Your task to perform on an android device: Open internet settings Image 0: 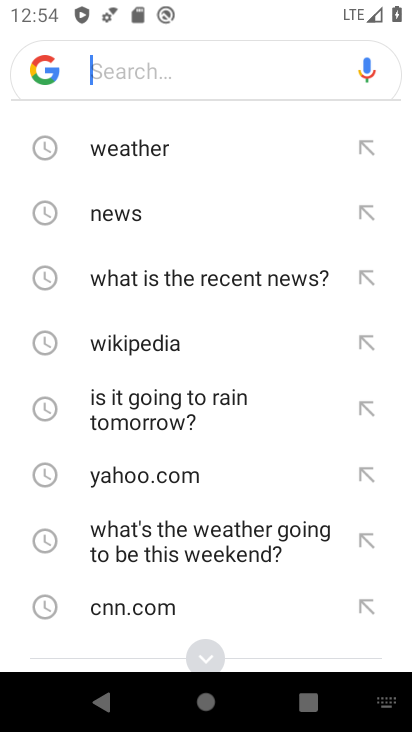
Step 0: press home button
Your task to perform on an android device: Open internet settings Image 1: 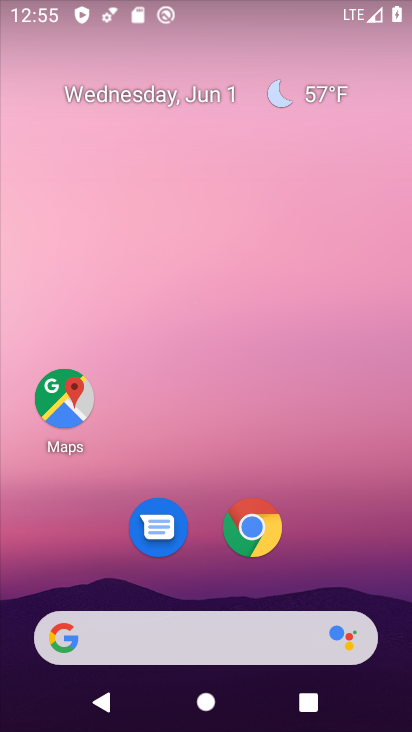
Step 1: drag from (208, 622) to (230, 156)
Your task to perform on an android device: Open internet settings Image 2: 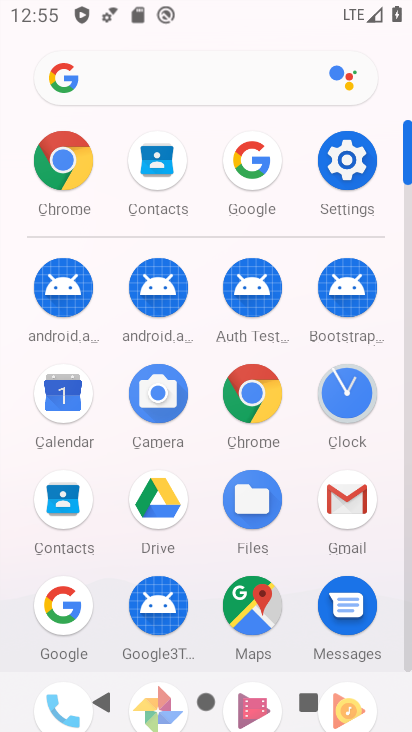
Step 2: click (353, 149)
Your task to perform on an android device: Open internet settings Image 3: 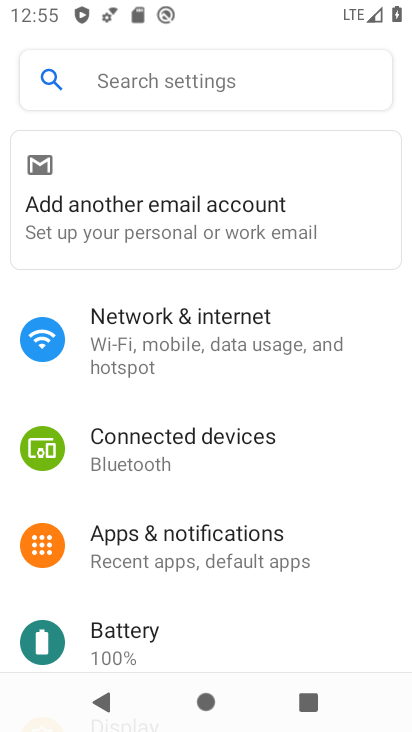
Step 3: click (211, 355)
Your task to perform on an android device: Open internet settings Image 4: 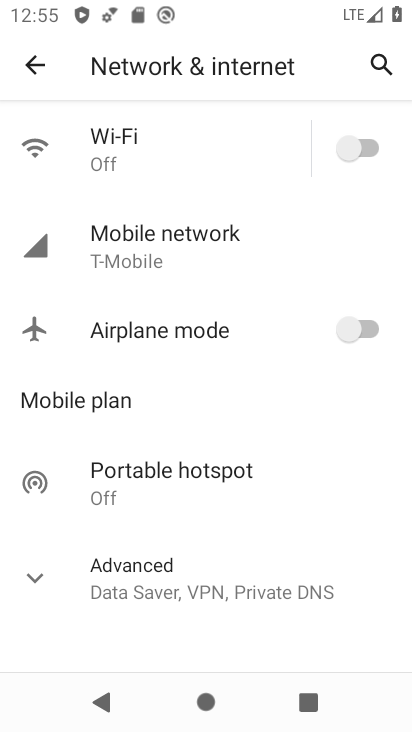
Step 4: task complete